Your task to perform on an android device: Open accessibility settings Image 0: 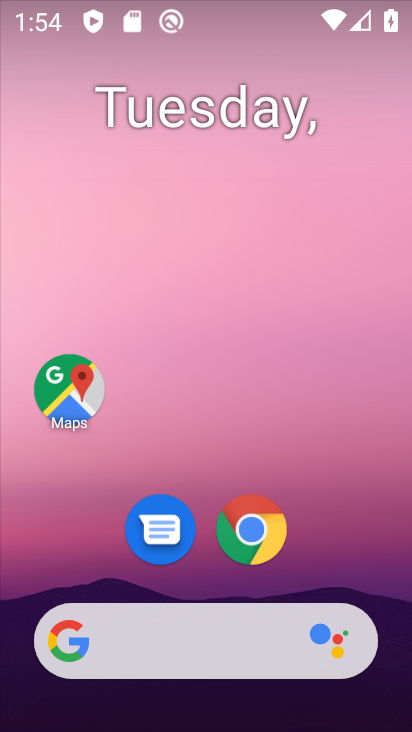
Step 0: drag from (393, 573) to (278, 95)
Your task to perform on an android device: Open accessibility settings Image 1: 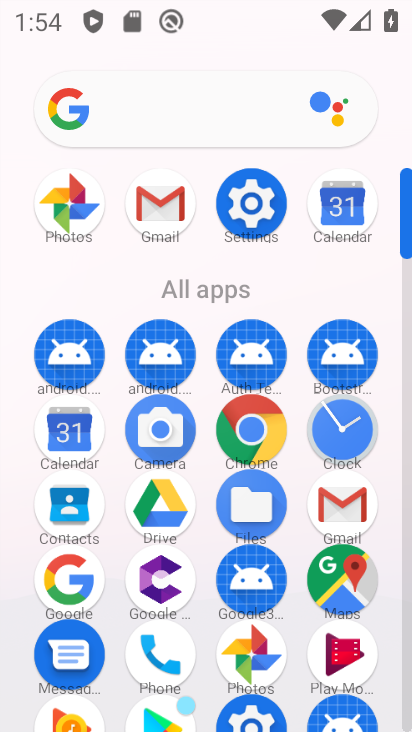
Step 1: click (278, 201)
Your task to perform on an android device: Open accessibility settings Image 2: 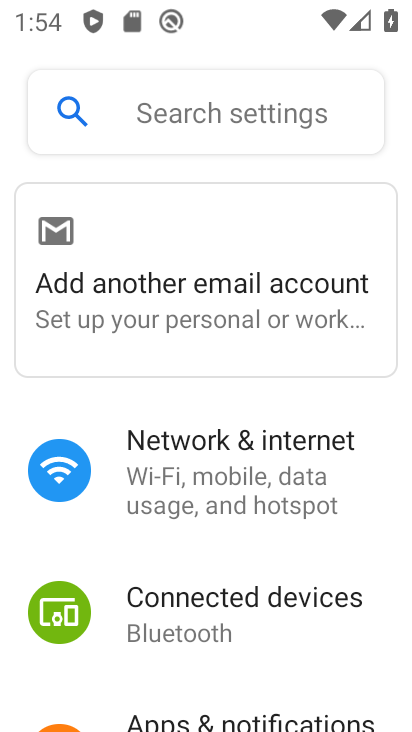
Step 2: drag from (324, 688) to (247, 178)
Your task to perform on an android device: Open accessibility settings Image 3: 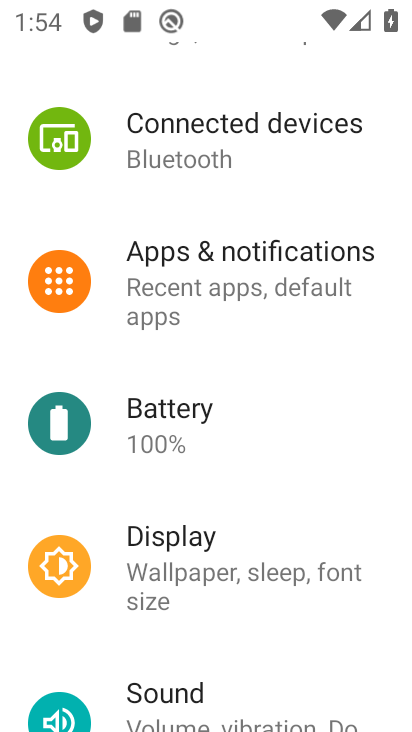
Step 3: drag from (294, 648) to (245, 204)
Your task to perform on an android device: Open accessibility settings Image 4: 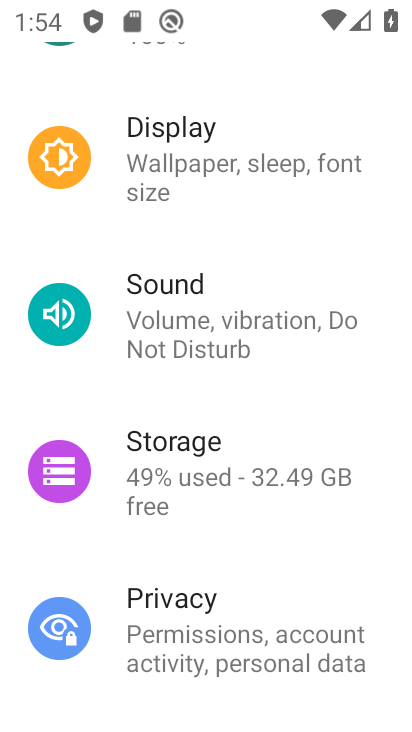
Step 4: drag from (222, 624) to (178, 215)
Your task to perform on an android device: Open accessibility settings Image 5: 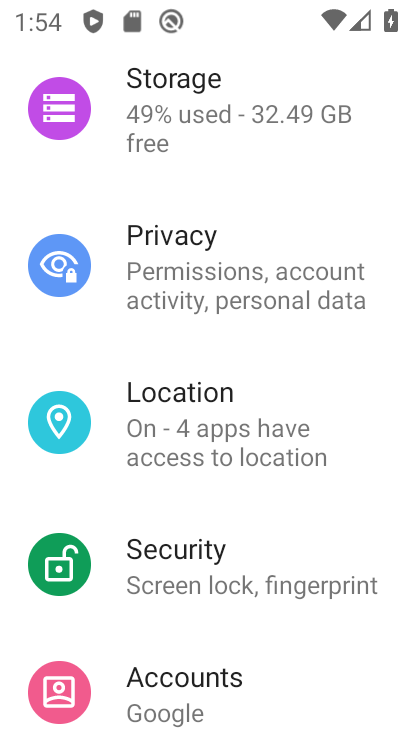
Step 5: drag from (234, 580) to (191, 110)
Your task to perform on an android device: Open accessibility settings Image 6: 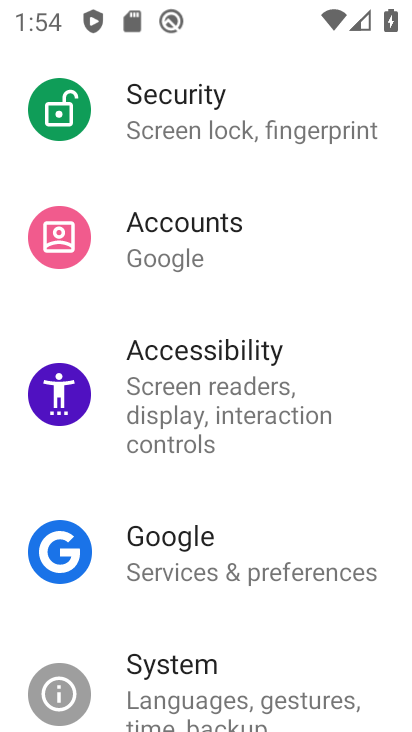
Step 6: click (226, 369)
Your task to perform on an android device: Open accessibility settings Image 7: 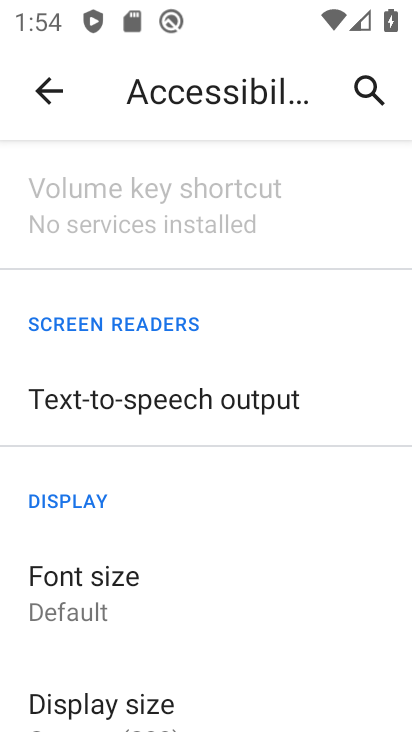
Step 7: task complete